Your task to perform on an android device: Search for seafood restaurants on Google Maps Image 0: 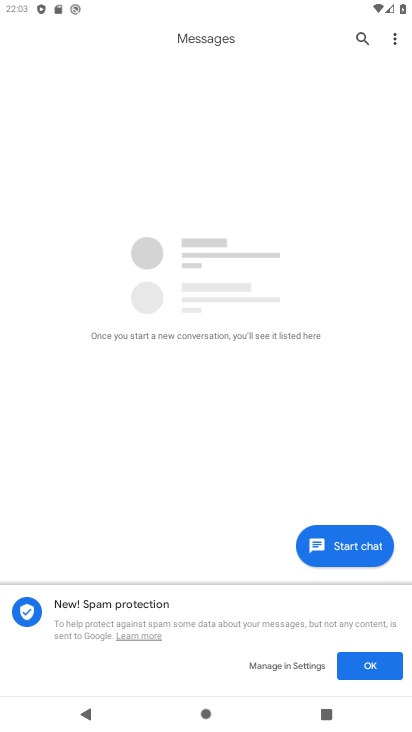
Step 0: press home button
Your task to perform on an android device: Search for seafood restaurants on Google Maps Image 1: 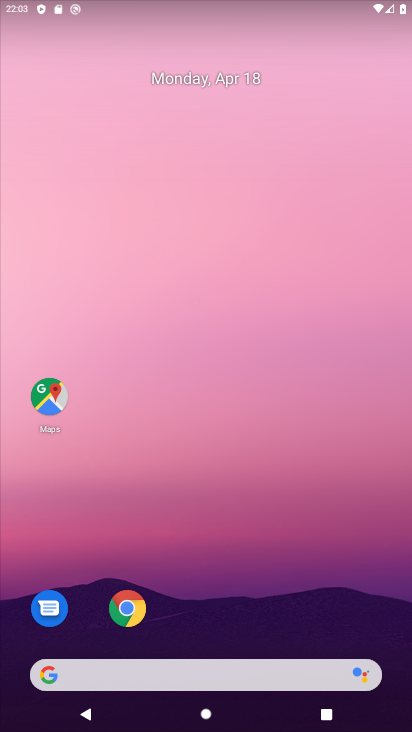
Step 1: click (51, 399)
Your task to perform on an android device: Search for seafood restaurants on Google Maps Image 2: 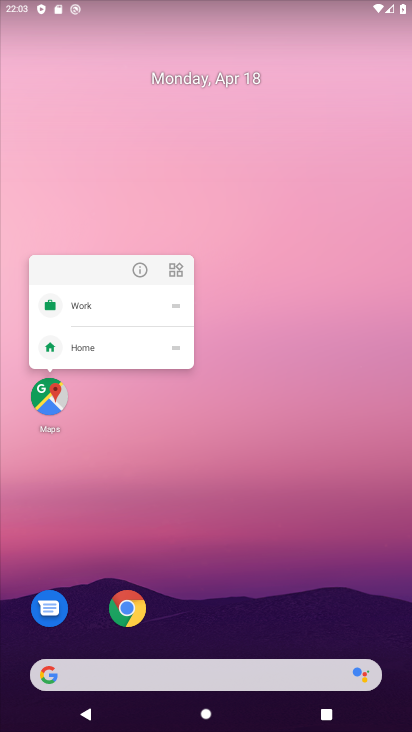
Step 2: click (51, 399)
Your task to perform on an android device: Search for seafood restaurants on Google Maps Image 3: 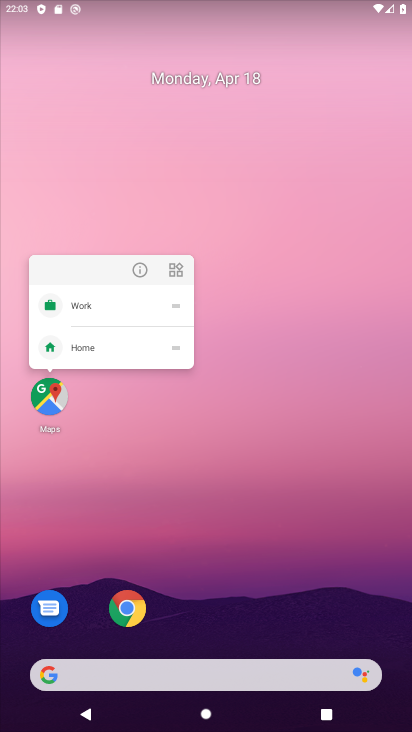
Step 3: click (145, 417)
Your task to perform on an android device: Search for seafood restaurants on Google Maps Image 4: 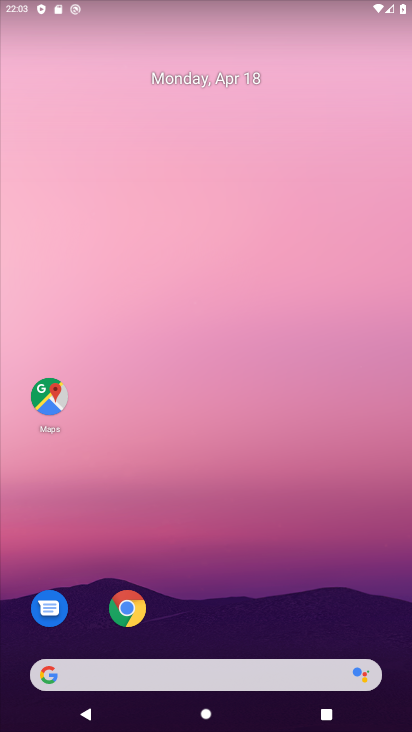
Step 4: click (50, 399)
Your task to perform on an android device: Search for seafood restaurants on Google Maps Image 5: 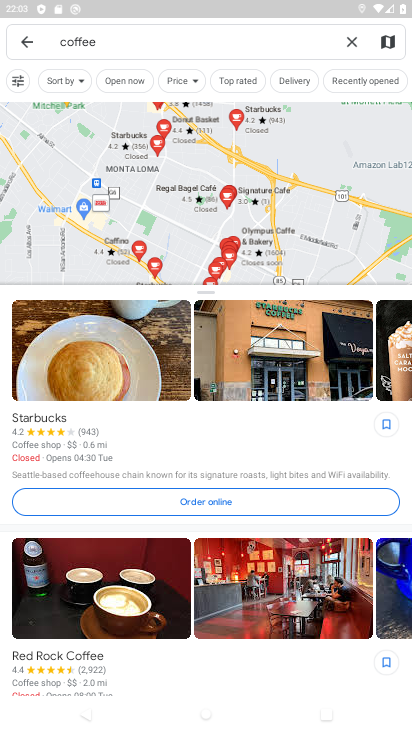
Step 5: click (257, 43)
Your task to perform on an android device: Search for seafood restaurants on Google Maps Image 6: 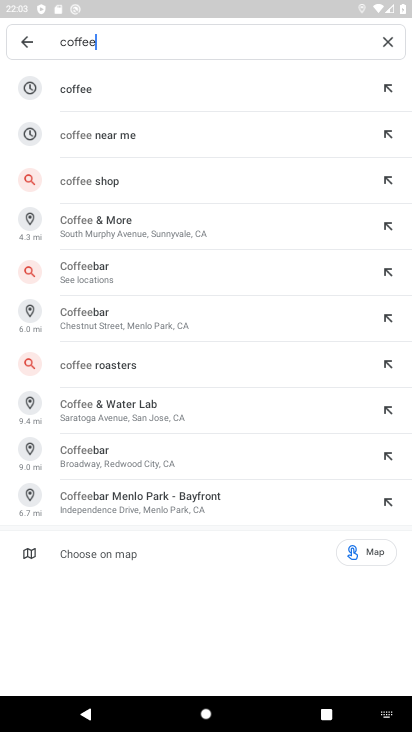
Step 6: click (388, 44)
Your task to perform on an android device: Search for seafood restaurants on Google Maps Image 7: 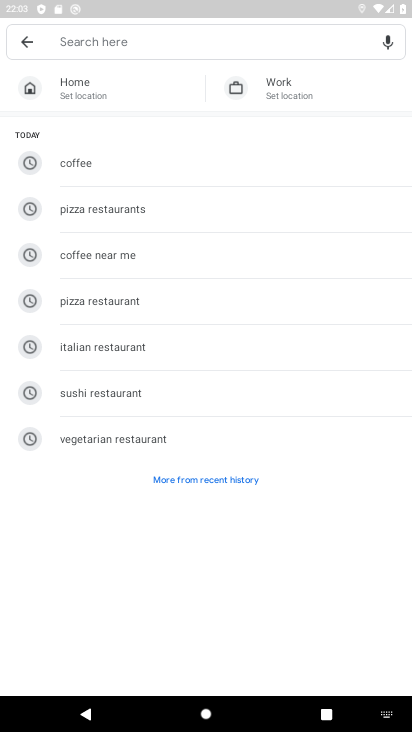
Step 7: type "seafood restaurent"
Your task to perform on an android device: Search for seafood restaurants on Google Maps Image 8: 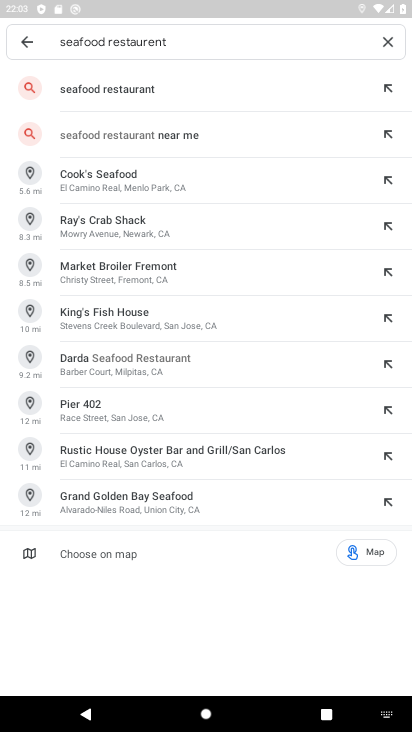
Step 8: click (122, 95)
Your task to perform on an android device: Search for seafood restaurants on Google Maps Image 9: 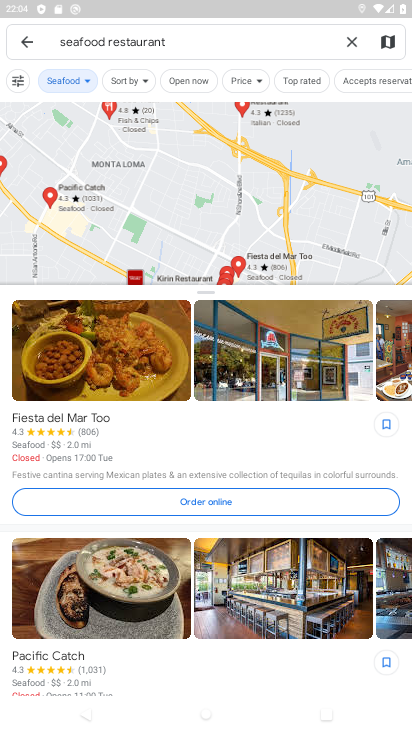
Step 9: task complete